Your task to perform on an android device: turn off airplane mode Image 0: 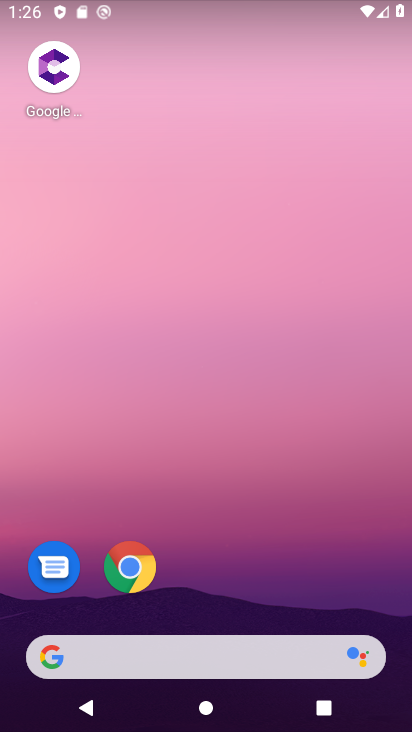
Step 0: drag from (339, 7) to (355, 715)
Your task to perform on an android device: turn off airplane mode Image 1: 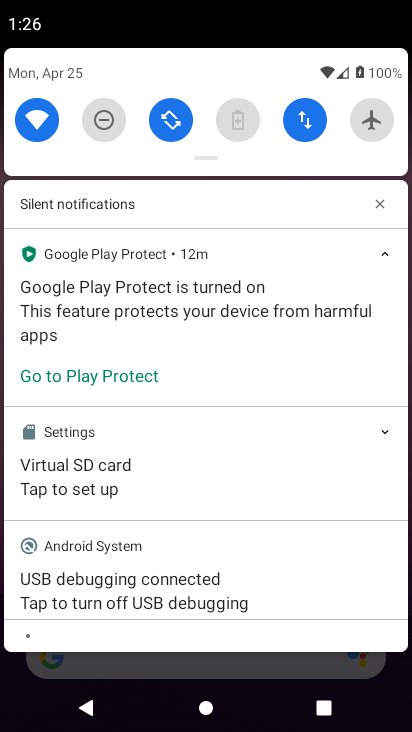
Step 1: task complete